Your task to perform on an android device: move a message to another label in the gmail app Image 0: 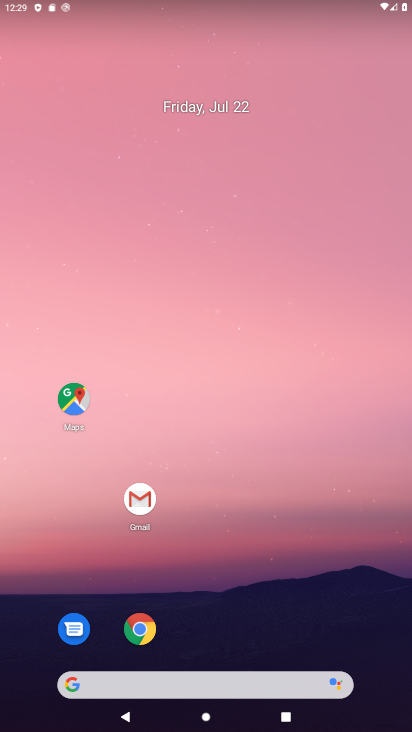
Step 0: drag from (233, 585) to (212, 446)
Your task to perform on an android device: move a message to another label in the gmail app Image 1: 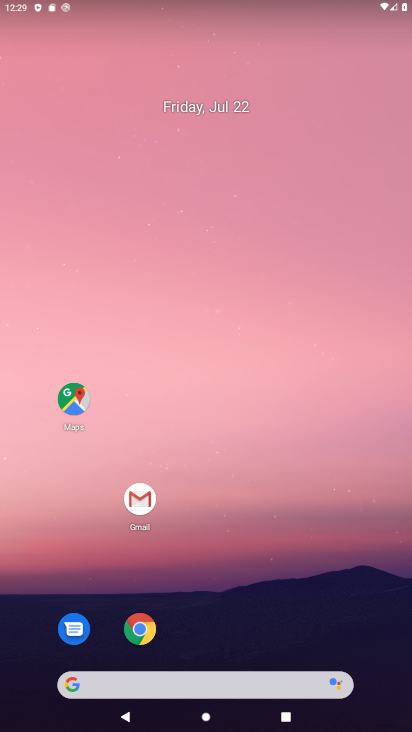
Step 1: drag from (210, 571) to (189, 353)
Your task to perform on an android device: move a message to another label in the gmail app Image 2: 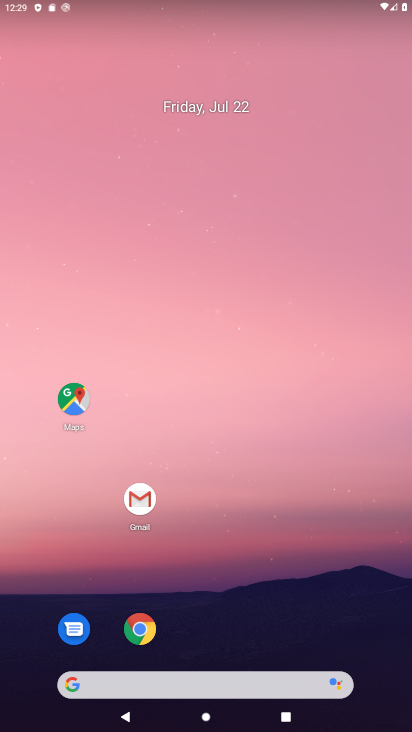
Step 2: drag from (217, 636) to (196, 382)
Your task to perform on an android device: move a message to another label in the gmail app Image 3: 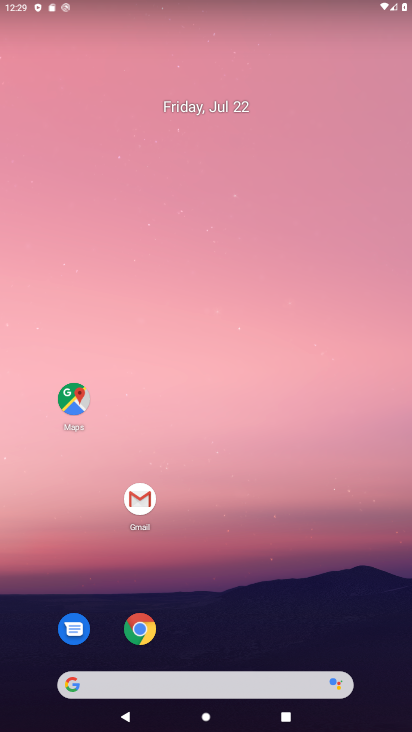
Step 3: drag from (289, 484) to (302, 208)
Your task to perform on an android device: move a message to another label in the gmail app Image 4: 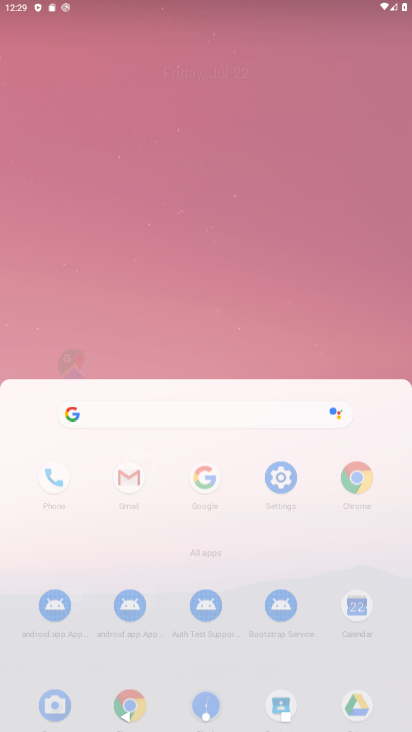
Step 4: drag from (280, 486) to (227, 83)
Your task to perform on an android device: move a message to another label in the gmail app Image 5: 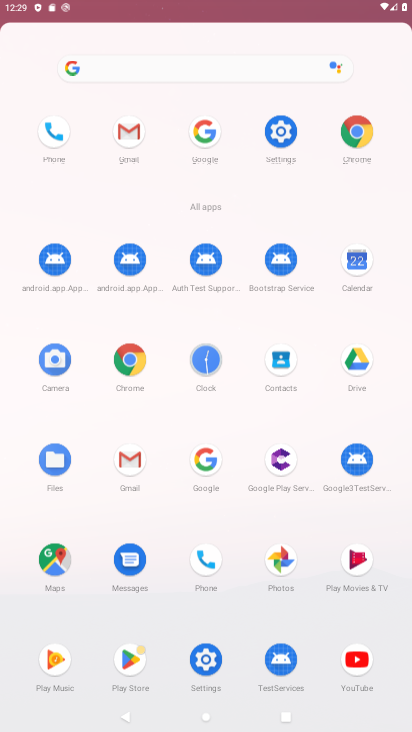
Step 5: drag from (246, 310) to (240, 69)
Your task to perform on an android device: move a message to another label in the gmail app Image 6: 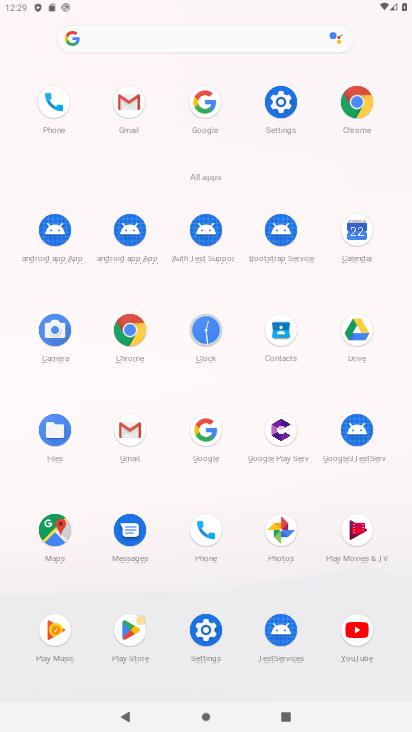
Step 6: drag from (168, 419) to (182, 193)
Your task to perform on an android device: move a message to another label in the gmail app Image 7: 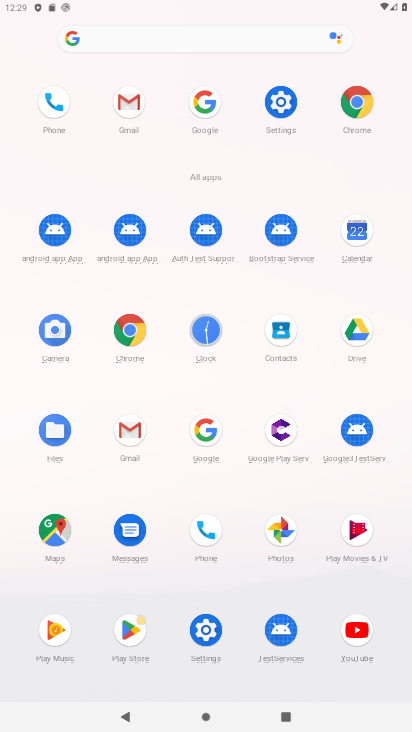
Step 7: click (125, 432)
Your task to perform on an android device: move a message to another label in the gmail app Image 8: 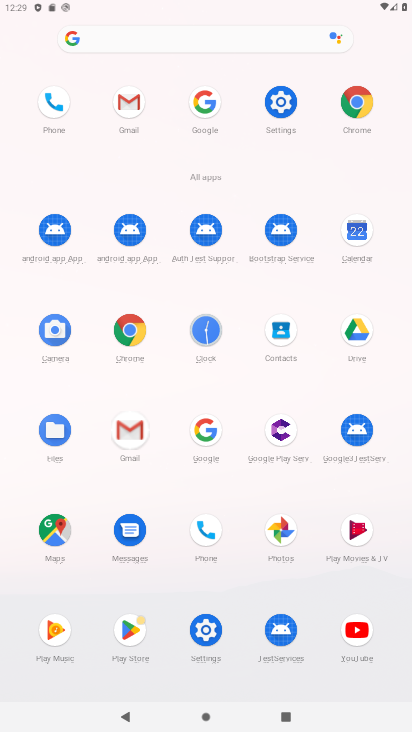
Step 8: click (129, 431)
Your task to perform on an android device: move a message to another label in the gmail app Image 9: 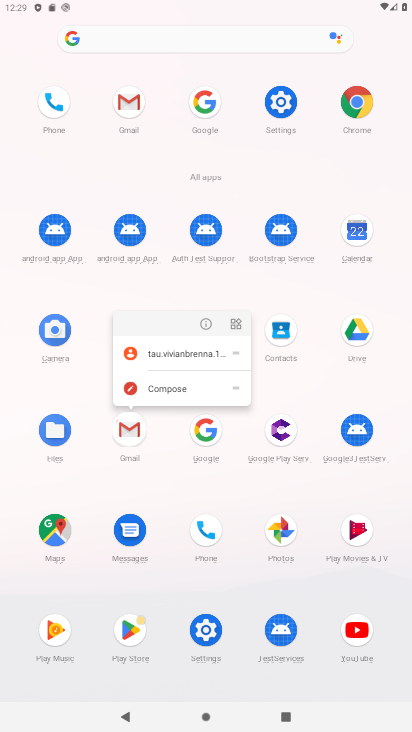
Step 9: click (129, 431)
Your task to perform on an android device: move a message to another label in the gmail app Image 10: 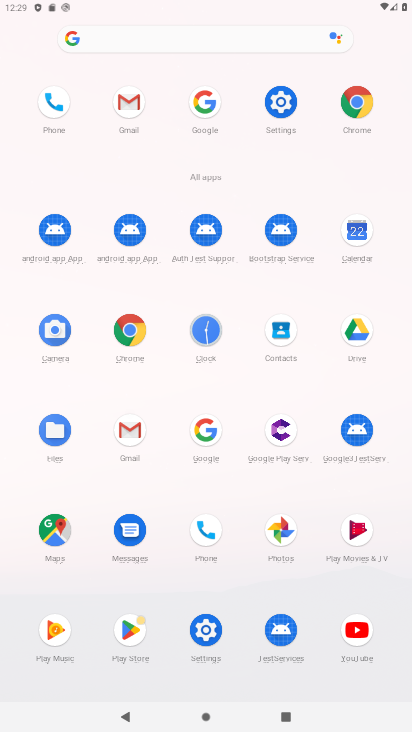
Step 10: click (133, 434)
Your task to perform on an android device: move a message to another label in the gmail app Image 11: 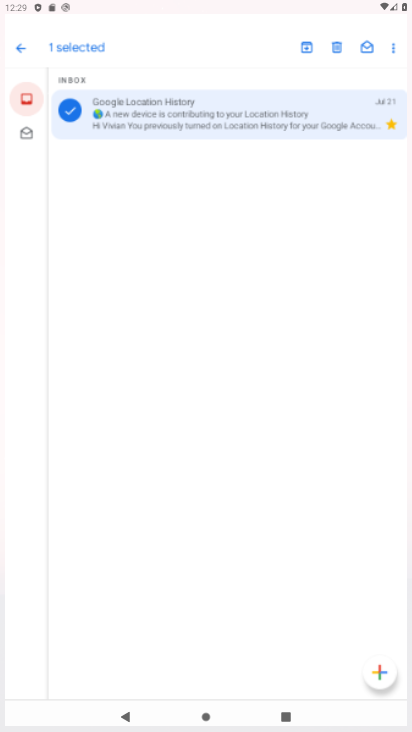
Step 11: click (128, 428)
Your task to perform on an android device: move a message to another label in the gmail app Image 12: 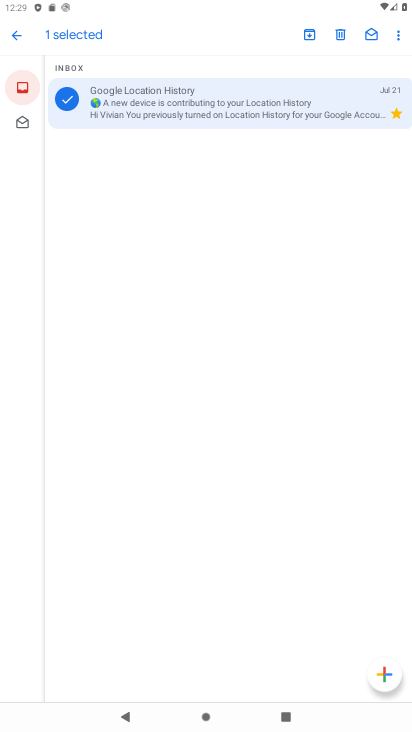
Step 12: click (125, 423)
Your task to perform on an android device: move a message to another label in the gmail app Image 13: 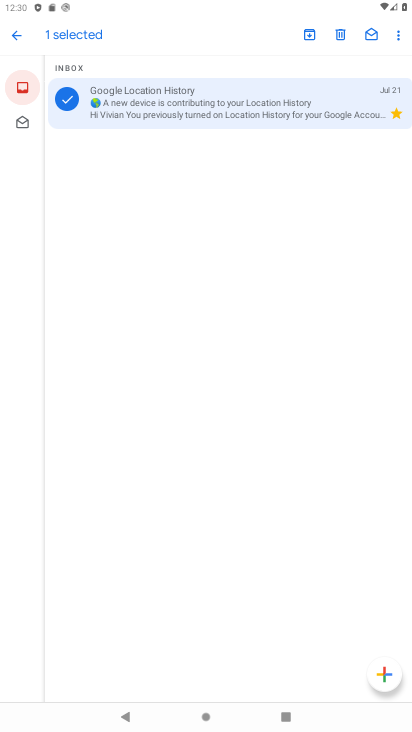
Step 13: click (374, 103)
Your task to perform on an android device: move a message to another label in the gmail app Image 14: 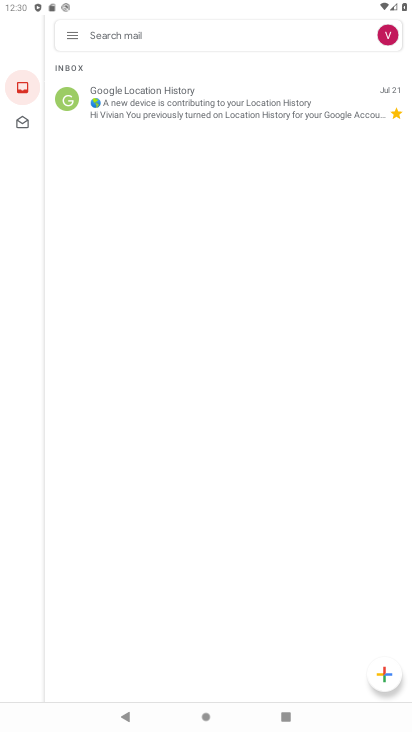
Step 14: click (326, 101)
Your task to perform on an android device: move a message to another label in the gmail app Image 15: 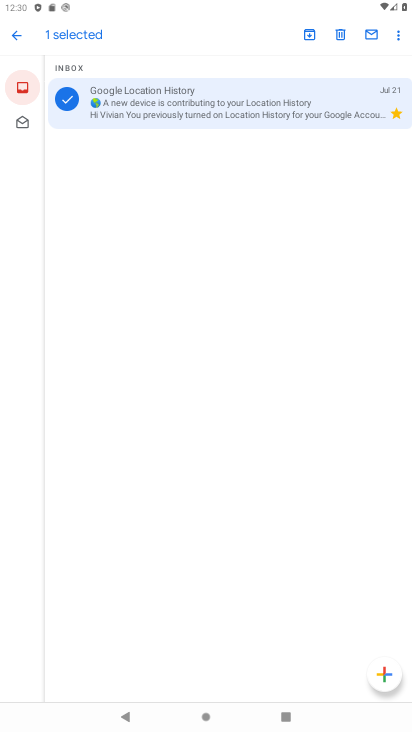
Step 15: click (400, 35)
Your task to perform on an android device: move a message to another label in the gmail app Image 16: 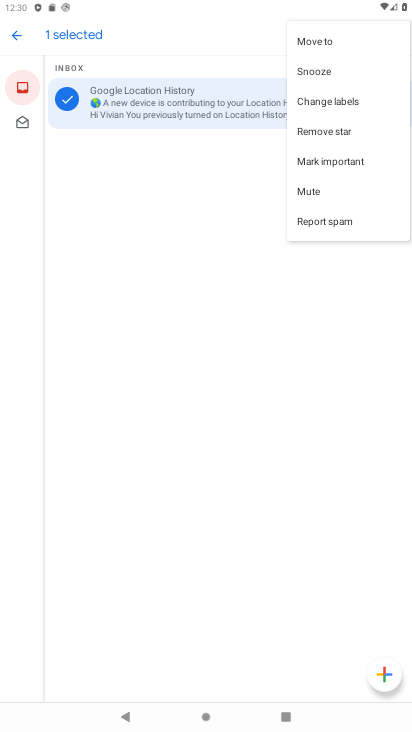
Step 16: click (328, 102)
Your task to perform on an android device: move a message to another label in the gmail app Image 17: 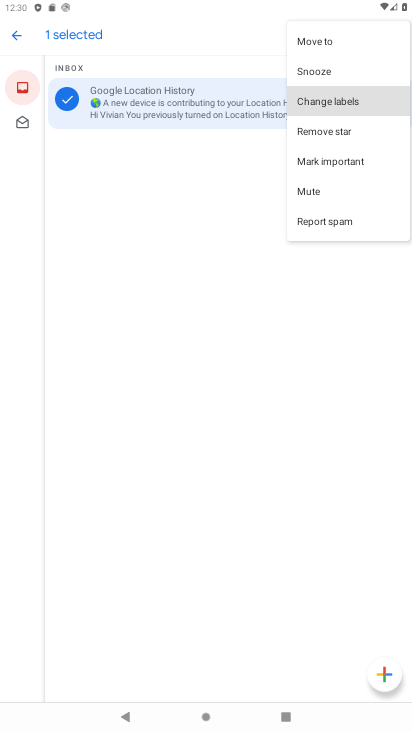
Step 17: click (327, 102)
Your task to perform on an android device: move a message to another label in the gmail app Image 18: 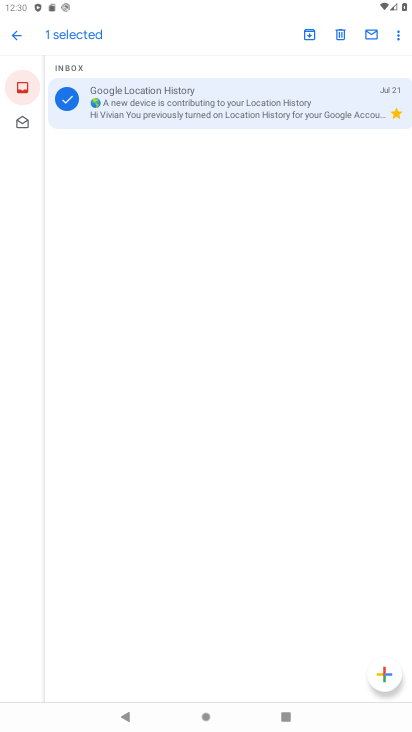
Step 18: task complete